Your task to perform on an android device: open a new tab in the chrome app Image 0: 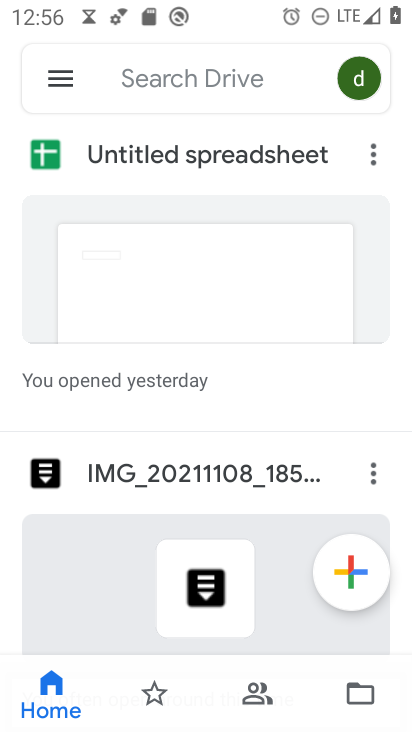
Step 0: press home button
Your task to perform on an android device: open a new tab in the chrome app Image 1: 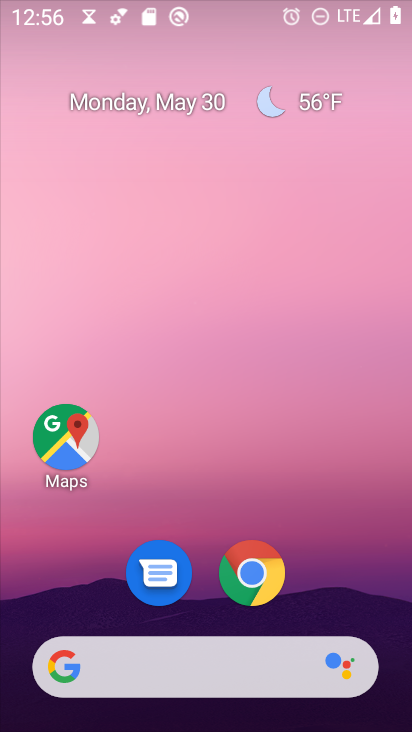
Step 1: drag from (260, 573) to (264, 105)
Your task to perform on an android device: open a new tab in the chrome app Image 2: 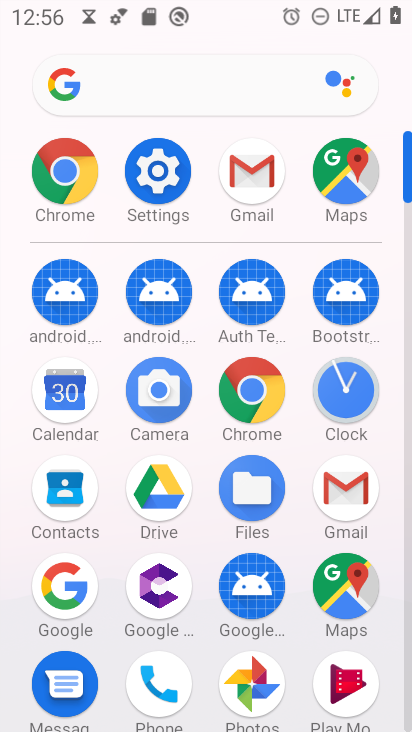
Step 2: click (254, 373)
Your task to perform on an android device: open a new tab in the chrome app Image 3: 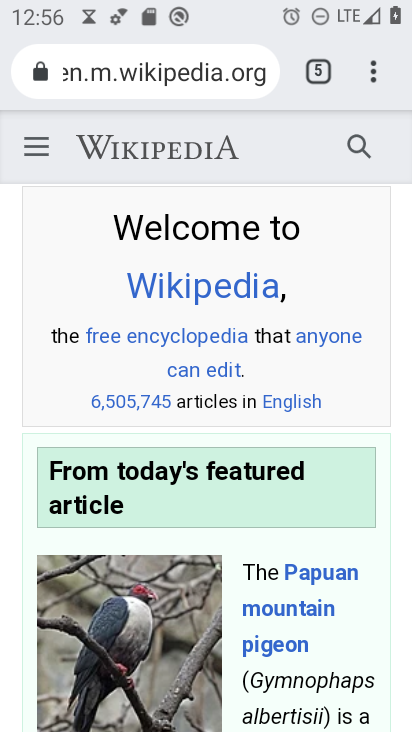
Step 3: task complete